Your task to perform on an android device: snooze an email in the gmail app Image 0: 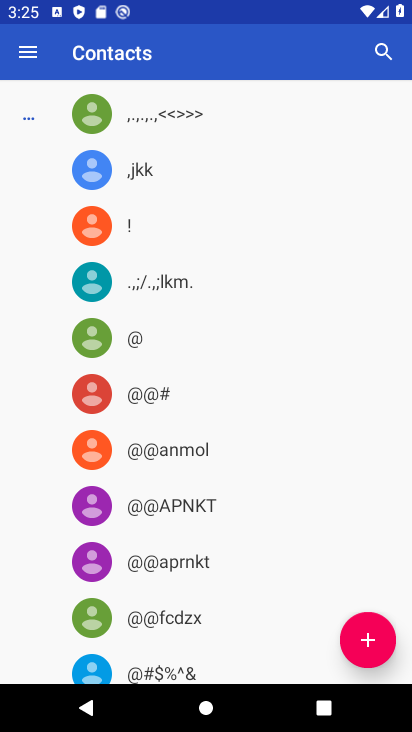
Step 0: press home button
Your task to perform on an android device: snooze an email in the gmail app Image 1: 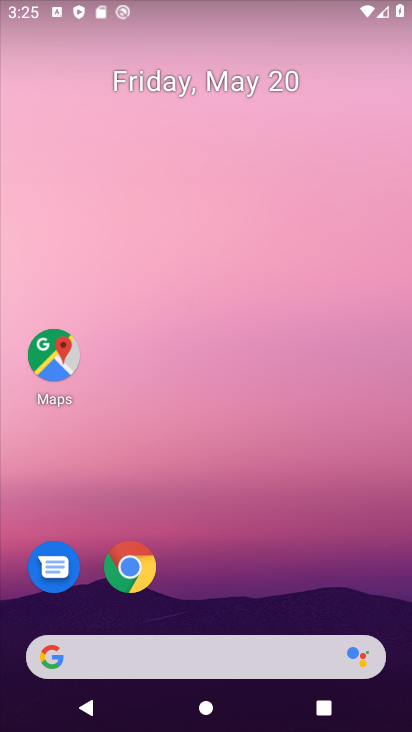
Step 1: drag from (248, 589) to (253, 60)
Your task to perform on an android device: snooze an email in the gmail app Image 2: 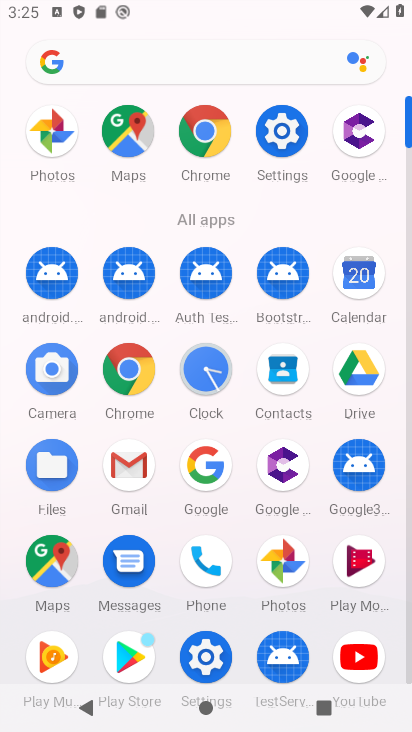
Step 2: click (122, 459)
Your task to perform on an android device: snooze an email in the gmail app Image 3: 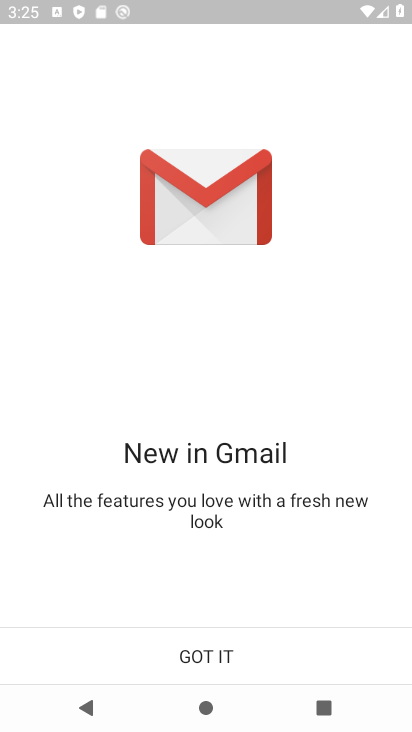
Step 3: click (231, 662)
Your task to perform on an android device: snooze an email in the gmail app Image 4: 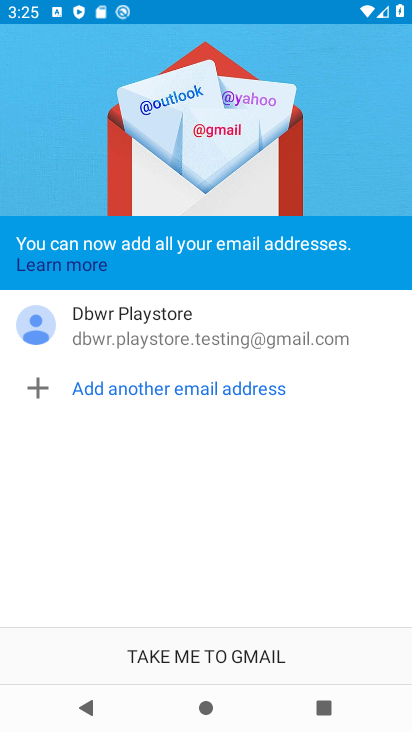
Step 4: click (184, 657)
Your task to perform on an android device: snooze an email in the gmail app Image 5: 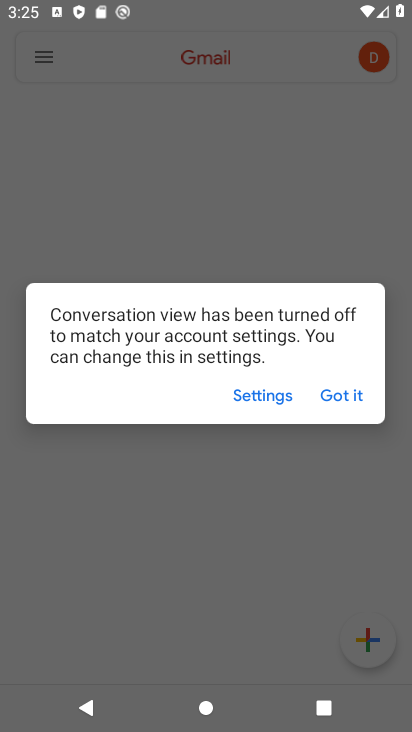
Step 5: click (337, 405)
Your task to perform on an android device: snooze an email in the gmail app Image 6: 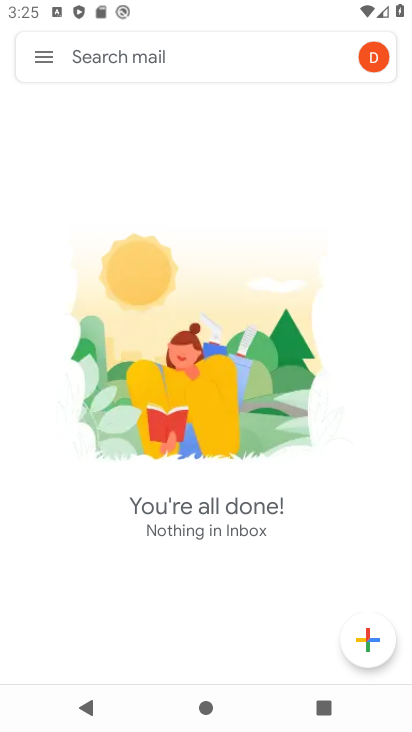
Step 6: click (44, 54)
Your task to perform on an android device: snooze an email in the gmail app Image 7: 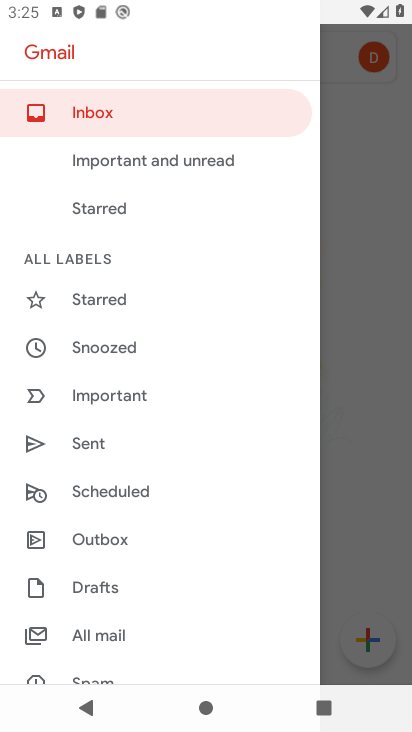
Step 7: drag from (137, 669) to (64, 180)
Your task to perform on an android device: snooze an email in the gmail app Image 8: 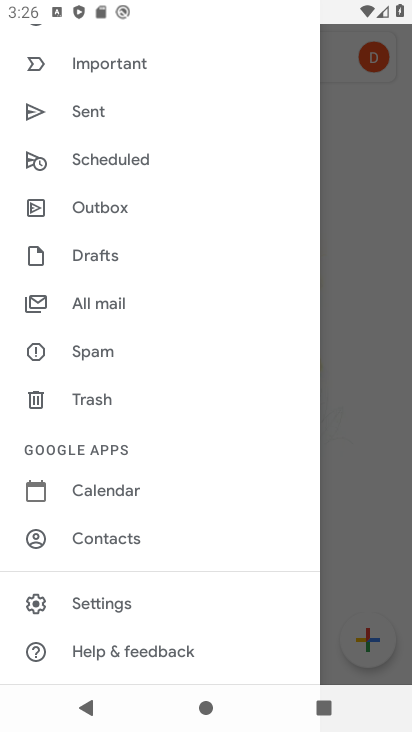
Step 8: click (101, 306)
Your task to perform on an android device: snooze an email in the gmail app Image 9: 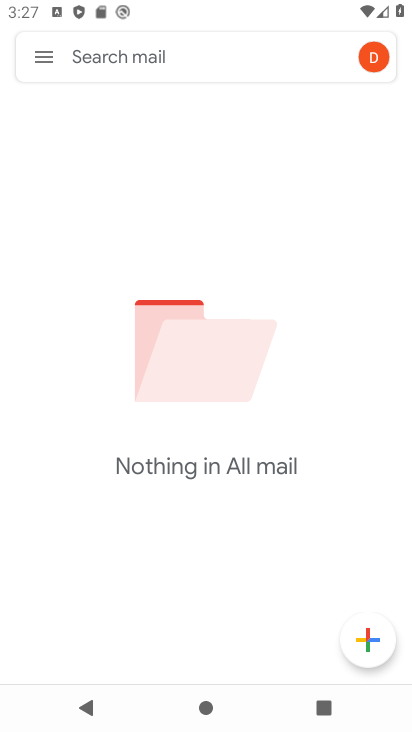
Step 9: task complete